Your task to perform on an android device: Clear all items from cart on target.com. Add "alienware area 51" to the cart on target.com, then select checkout. Image 0: 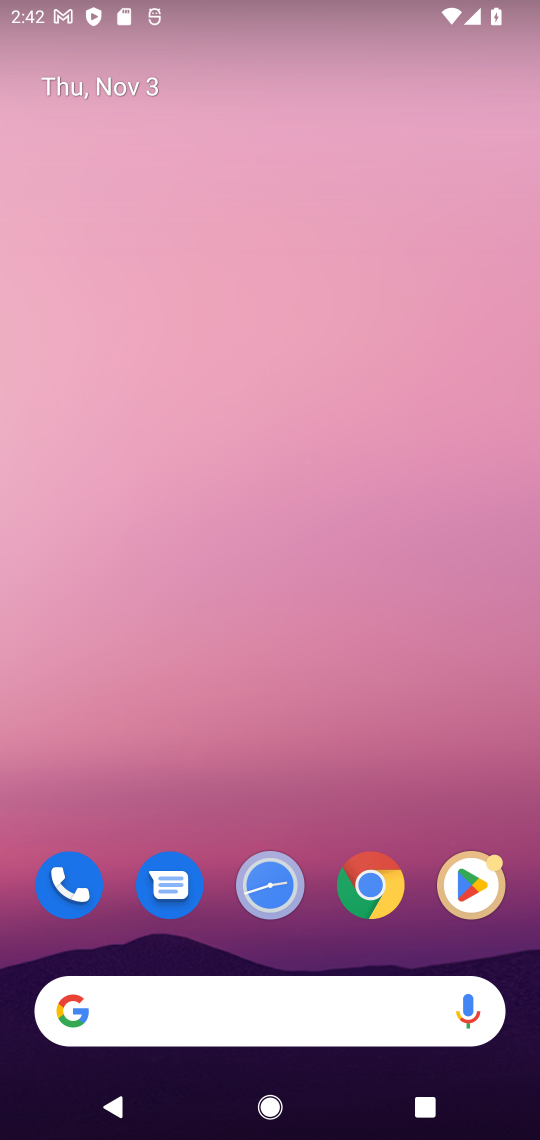
Step 0: press home button
Your task to perform on an android device: Clear all items from cart on target.com. Add "alienware area 51" to the cart on target.com, then select checkout. Image 1: 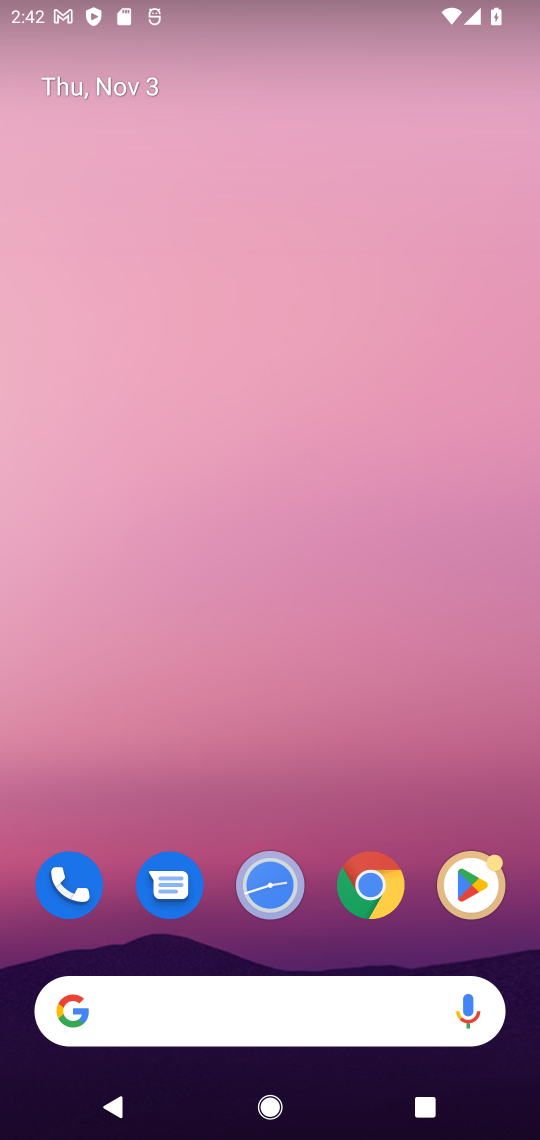
Step 1: drag from (309, 825) to (358, 88)
Your task to perform on an android device: Clear all items from cart on target.com. Add "alienware area 51" to the cart on target.com, then select checkout. Image 2: 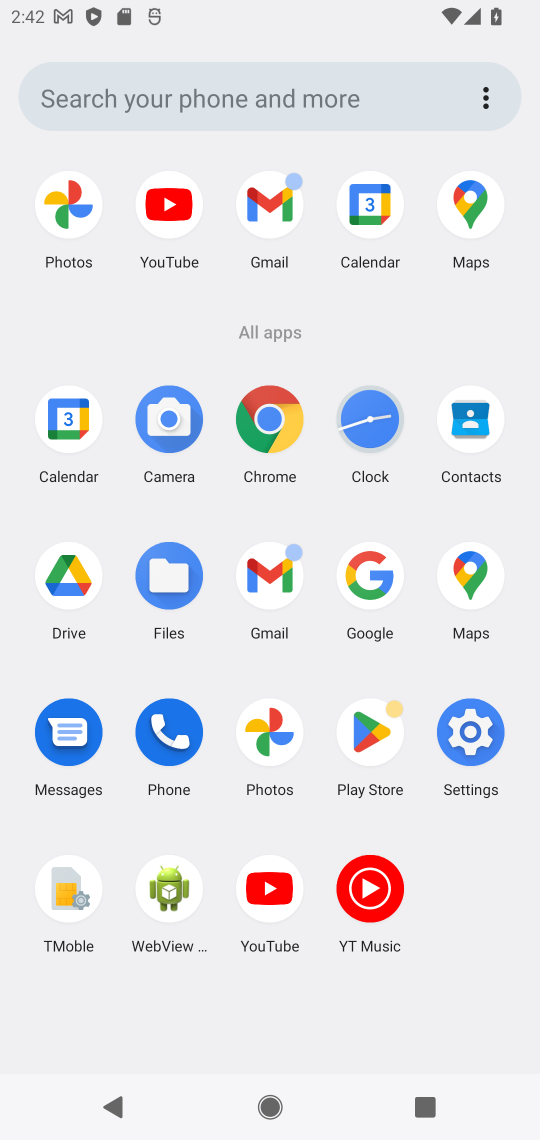
Step 2: click (266, 419)
Your task to perform on an android device: Clear all items from cart on target.com. Add "alienware area 51" to the cart on target.com, then select checkout. Image 3: 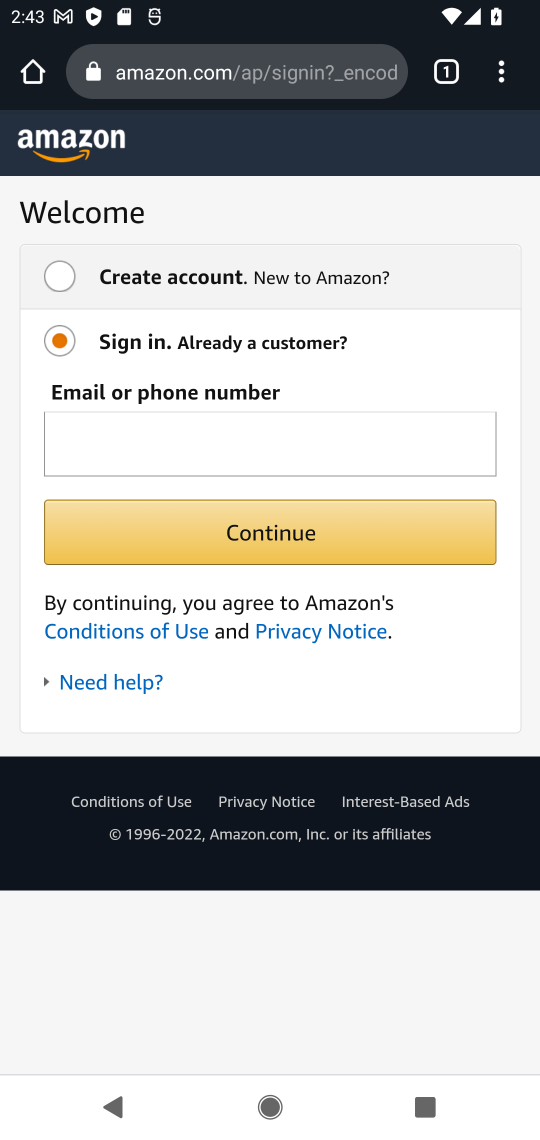
Step 3: click (200, 64)
Your task to perform on an android device: Clear all items from cart on target.com. Add "alienware area 51" to the cart on target.com, then select checkout. Image 4: 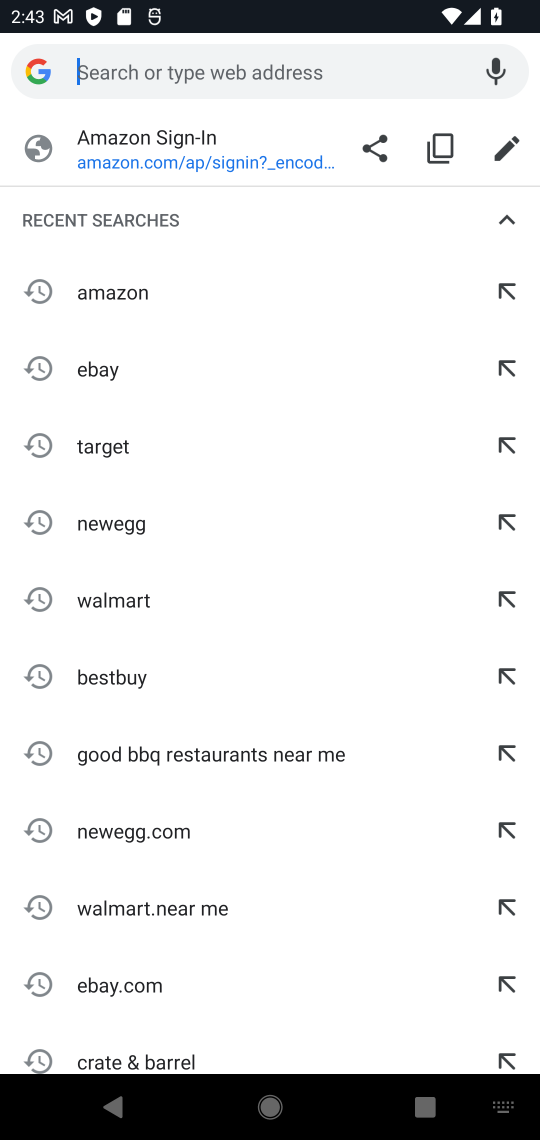
Step 4: click (139, 444)
Your task to perform on an android device: Clear all items from cart on target.com. Add "alienware area 51" to the cart on target.com, then select checkout. Image 5: 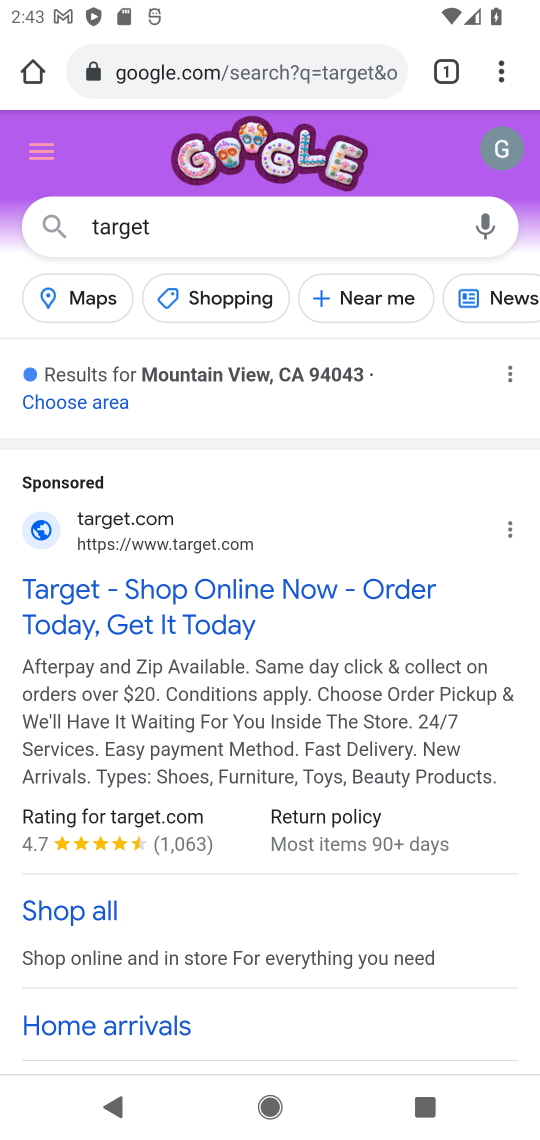
Step 5: click (172, 611)
Your task to perform on an android device: Clear all items from cart on target.com. Add "alienware area 51" to the cart on target.com, then select checkout. Image 6: 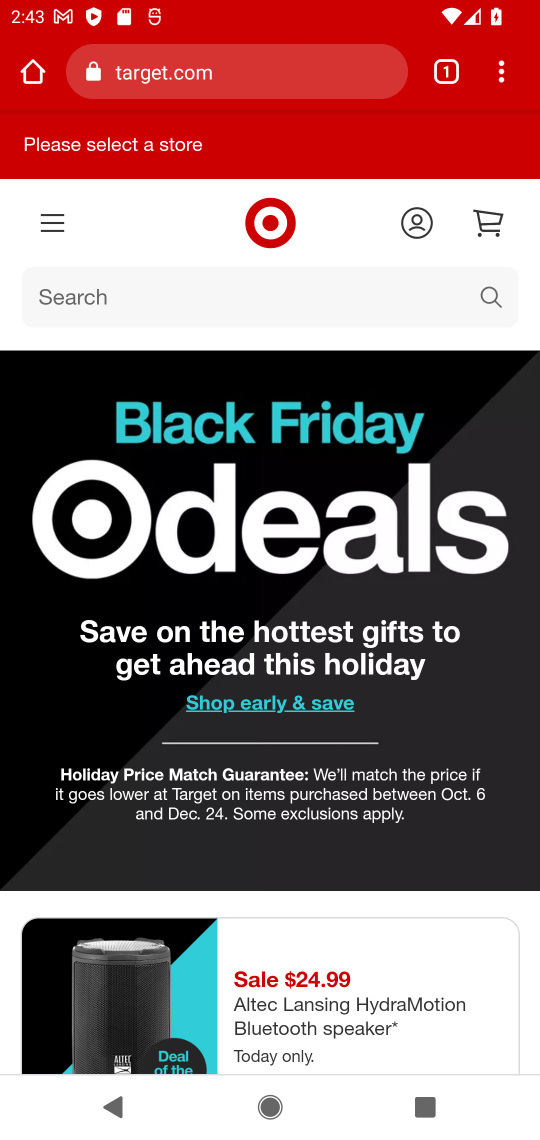
Step 6: drag from (262, 904) to (324, 566)
Your task to perform on an android device: Clear all items from cart on target.com. Add "alienware area 51" to the cart on target.com, then select checkout. Image 7: 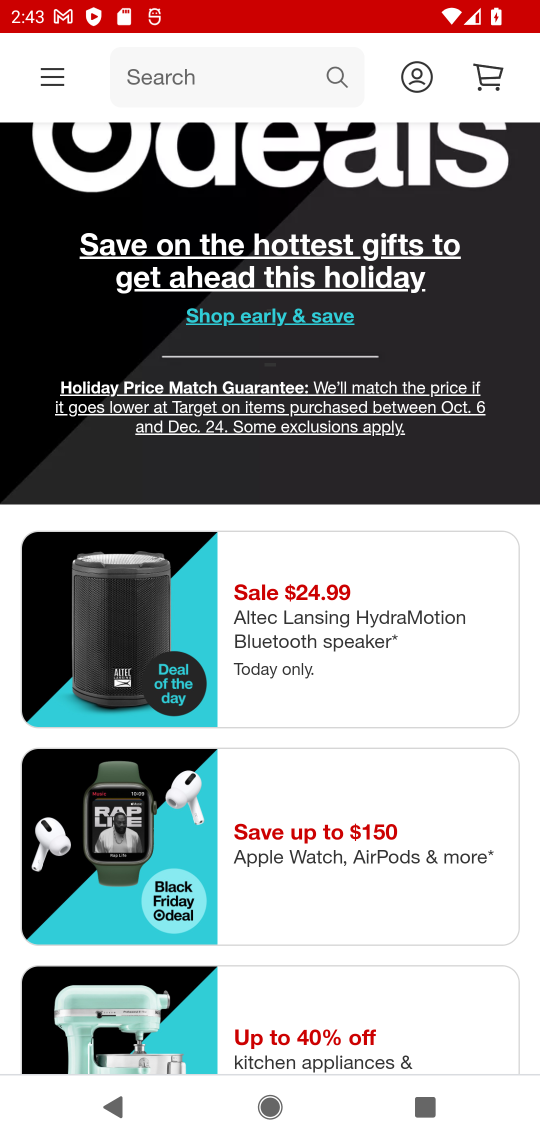
Step 7: drag from (306, 959) to (313, 1011)
Your task to perform on an android device: Clear all items from cart on target.com. Add "alienware area 51" to the cart on target.com, then select checkout. Image 8: 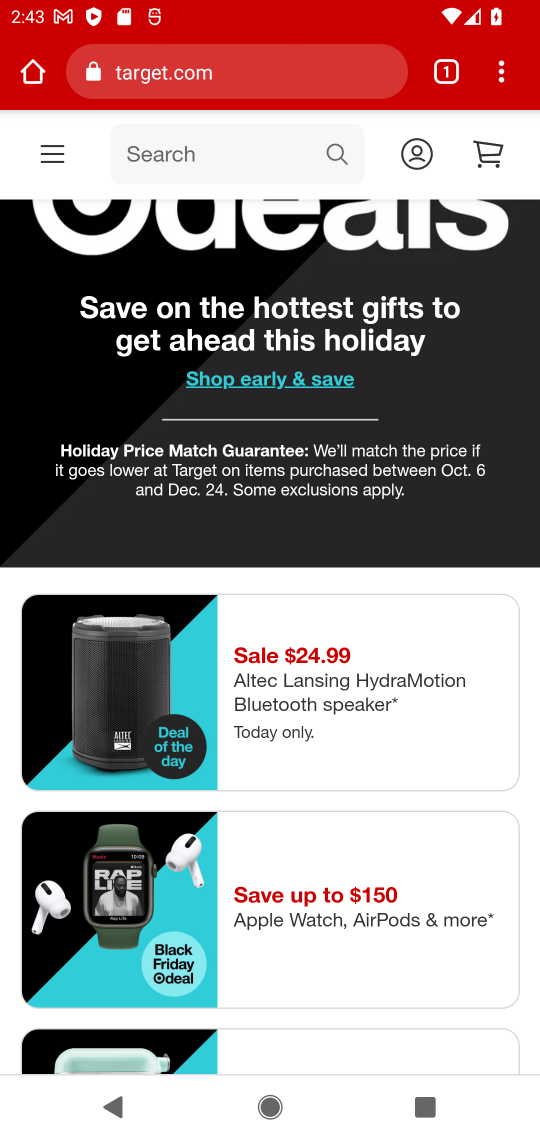
Step 8: click (194, 155)
Your task to perform on an android device: Clear all items from cart on target.com. Add "alienware area 51" to the cart on target.com, then select checkout. Image 9: 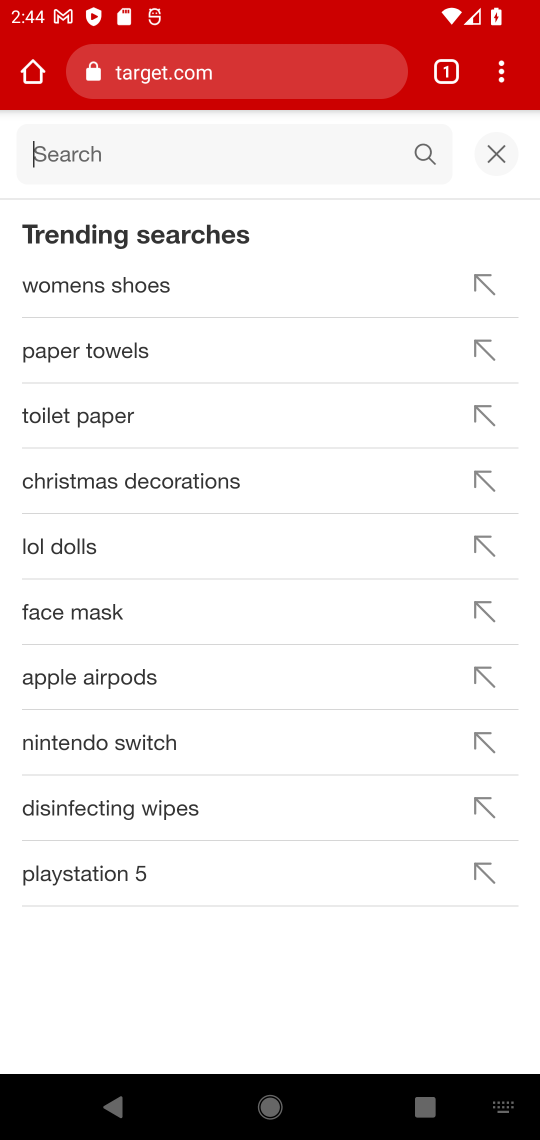
Step 9: type "alienware area 51"
Your task to perform on an android device: Clear all items from cart on target.com. Add "alienware area 51" to the cart on target.com, then select checkout. Image 10: 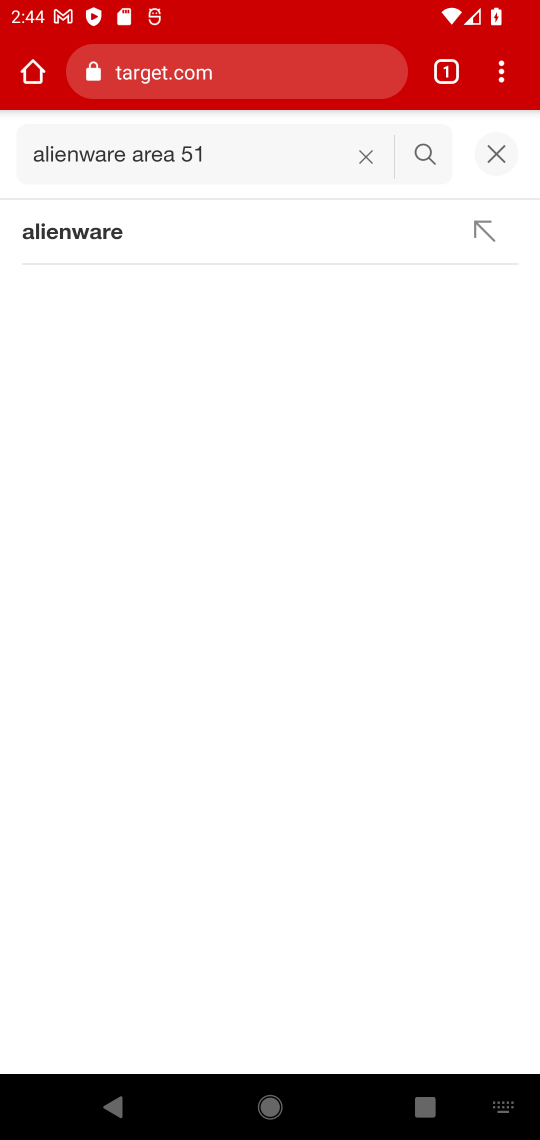
Step 10: click (428, 155)
Your task to perform on an android device: Clear all items from cart on target.com. Add "alienware area 51" to the cart on target.com, then select checkout. Image 11: 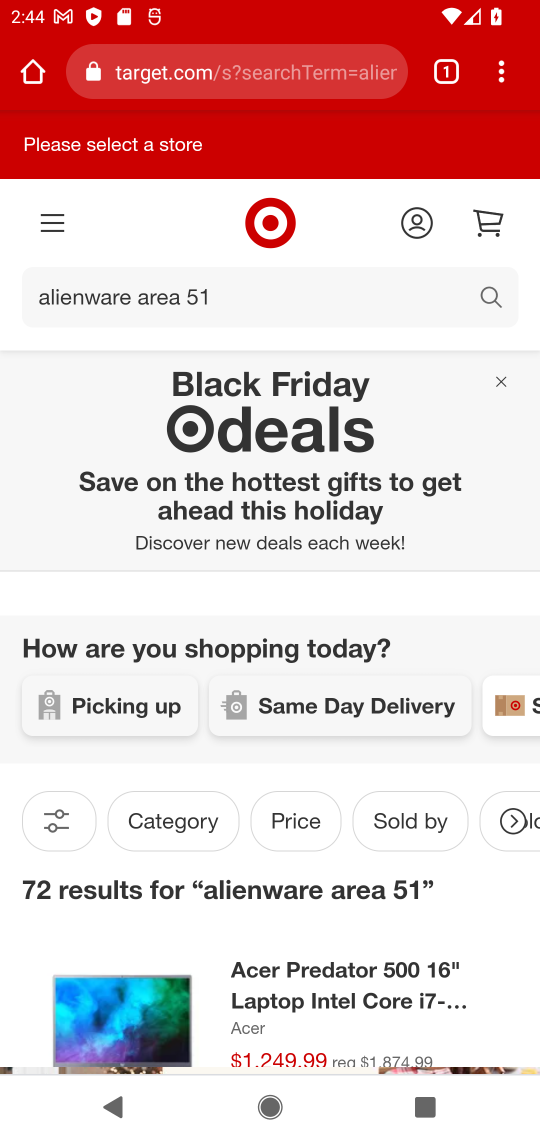
Step 11: task complete